Your task to perform on an android device: delete a single message in the gmail app Image 0: 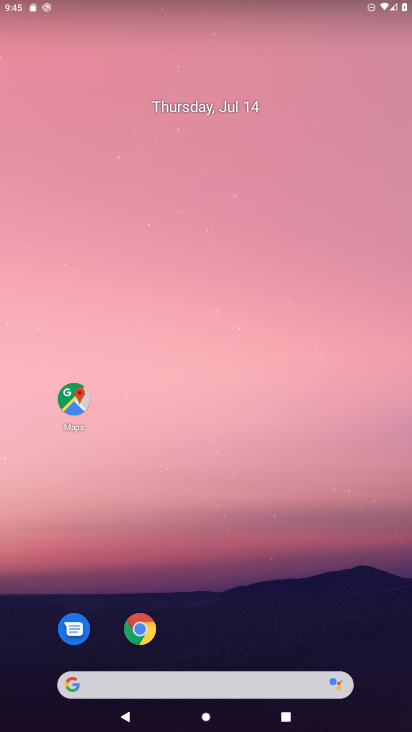
Step 0: drag from (245, 612) to (226, 69)
Your task to perform on an android device: delete a single message in the gmail app Image 1: 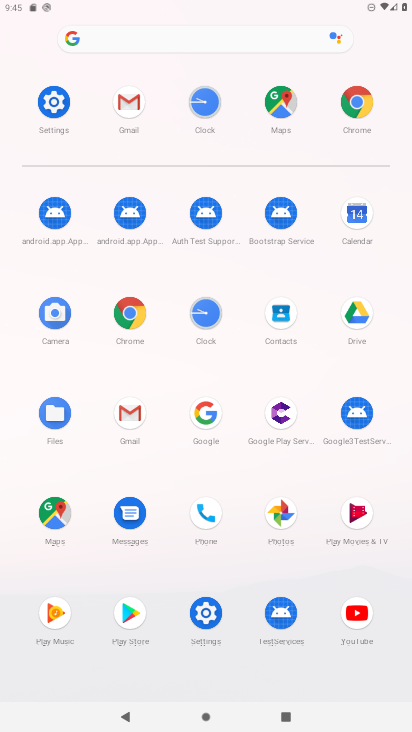
Step 1: click (125, 411)
Your task to perform on an android device: delete a single message in the gmail app Image 2: 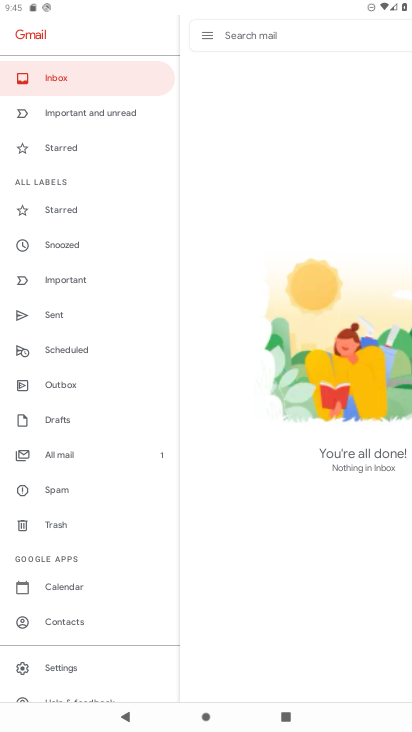
Step 2: task complete